Your task to perform on an android device: open a new tab in the chrome app Image 0: 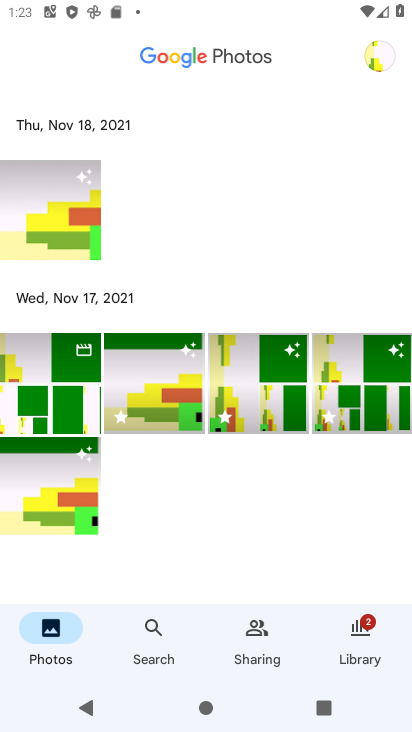
Step 0: press home button
Your task to perform on an android device: open a new tab in the chrome app Image 1: 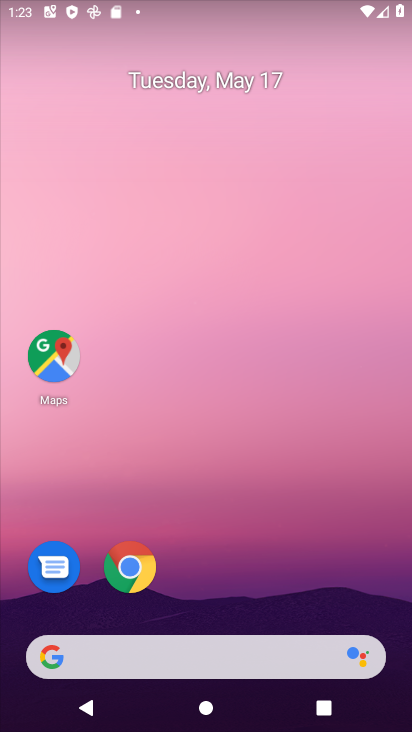
Step 1: click (131, 568)
Your task to perform on an android device: open a new tab in the chrome app Image 2: 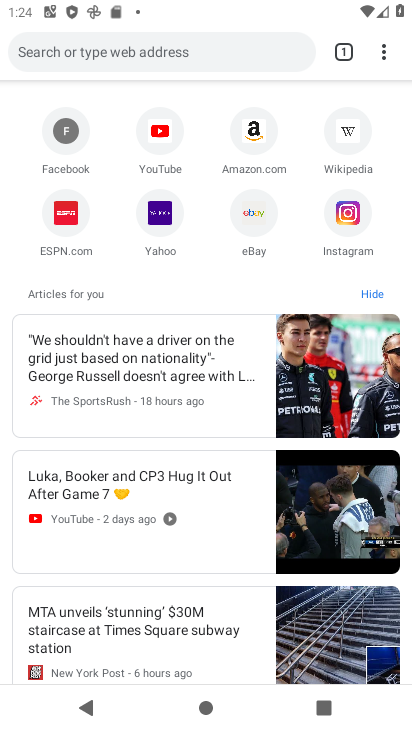
Step 2: click (383, 57)
Your task to perform on an android device: open a new tab in the chrome app Image 3: 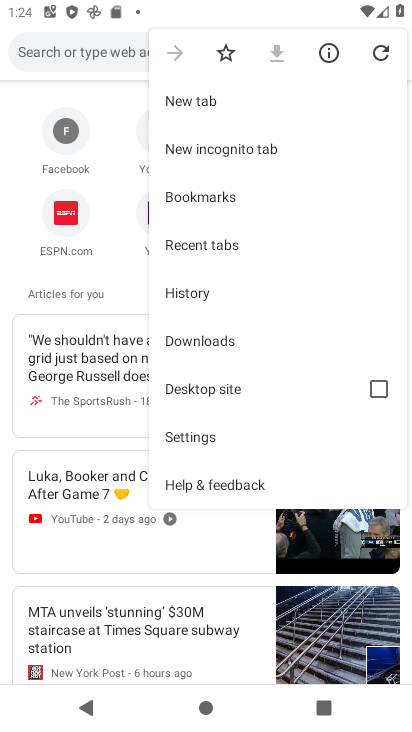
Step 3: click (186, 101)
Your task to perform on an android device: open a new tab in the chrome app Image 4: 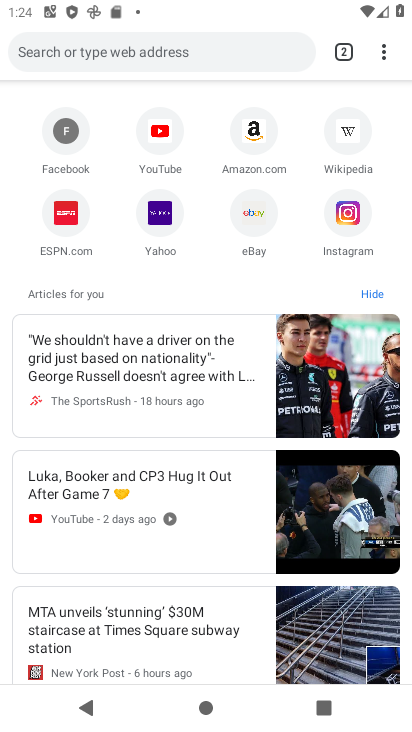
Step 4: task complete